Your task to perform on an android device: turn pop-ups on in chrome Image 0: 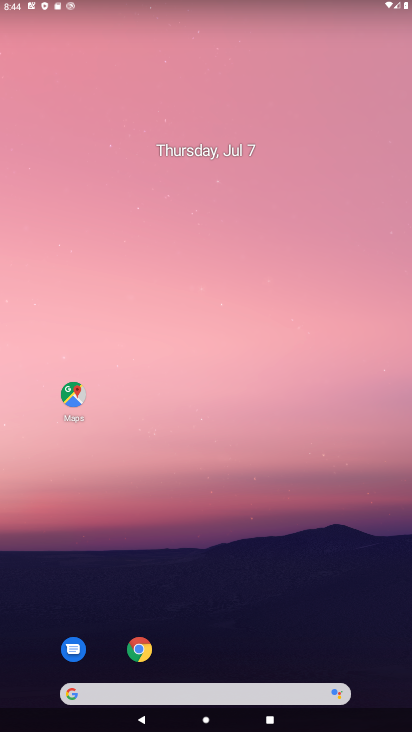
Step 0: click (140, 657)
Your task to perform on an android device: turn pop-ups on in chrome Image 1: 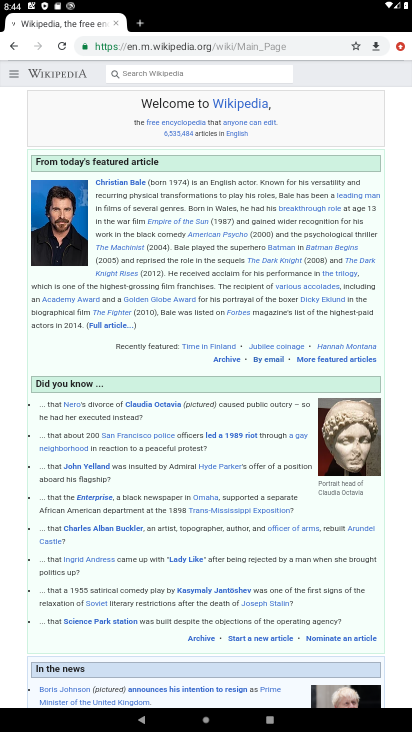
Step 1: click (401, 47)
Your task to perform on an android device: turn pop-ups on in chrome Image 2: 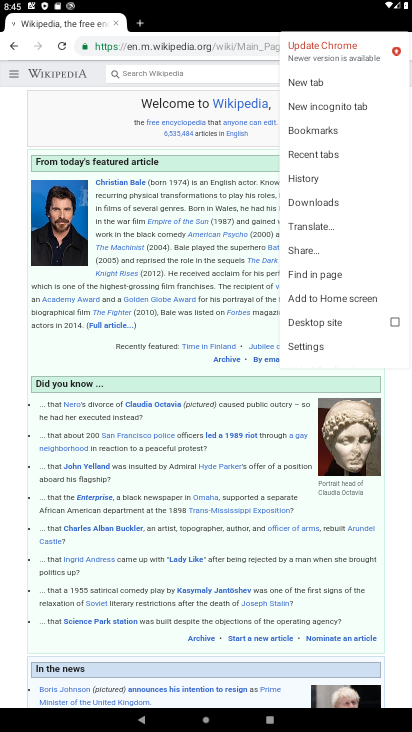
Step 2: click (309, 340)
Your task to perform on an android device: turn pop-ups on in chrome Image 3: 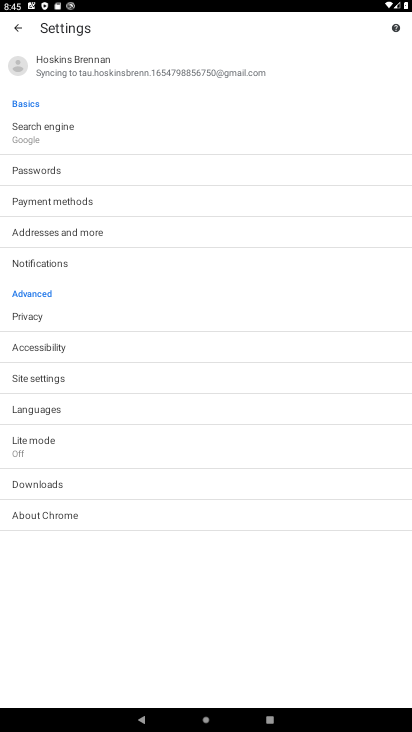
Step 3: click (54, 380)
Your task to perform on an android device: turn pop-ups on in chrome Image 4: 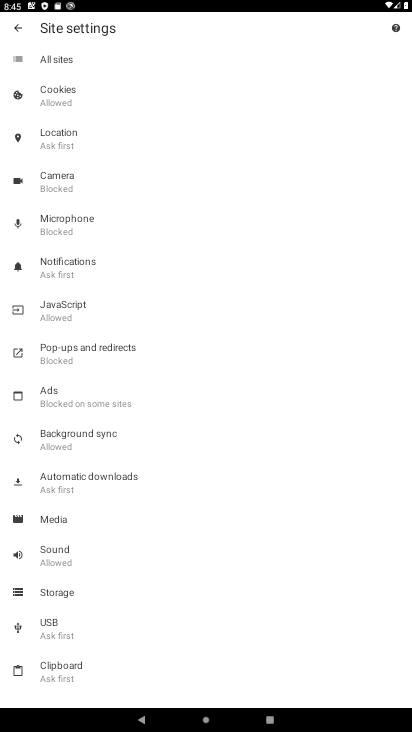
Step 4: click (68, 352)
Your task to perform on an android device: turn pop-ups on in chrome Image 5: 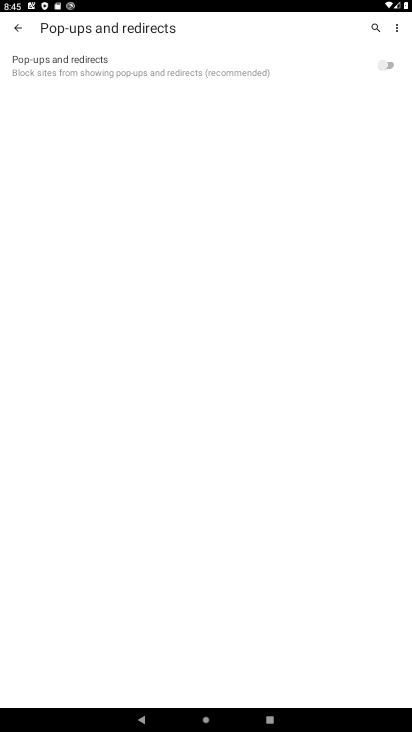
Step 5: click (390, 63)
Your task to perform on an android device: turn pop-ups on in chrome Image 6: 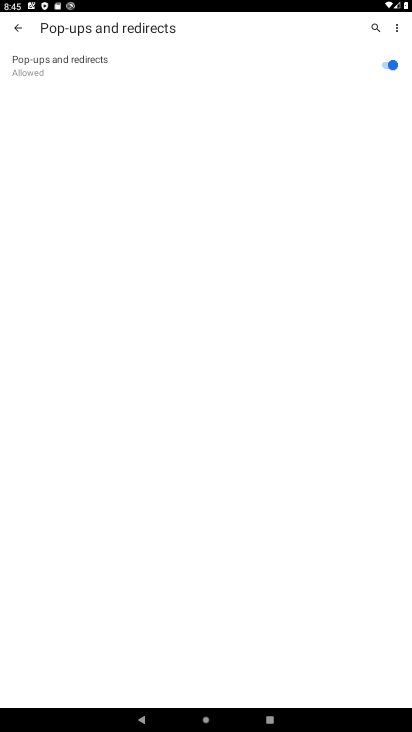
Step 6: task complete